Your task to perform on an android device: Turn off the flashlight Image 0: 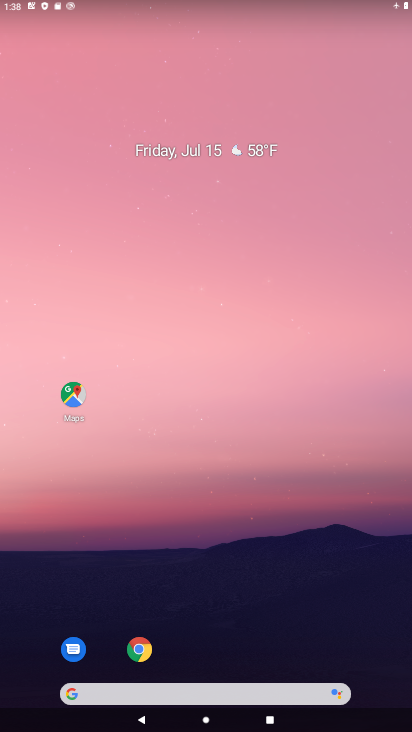
Step 0: drag from (235, 5) to (368, 547)
Your task to perform on an android device: Turn off the flashlight Image 1: 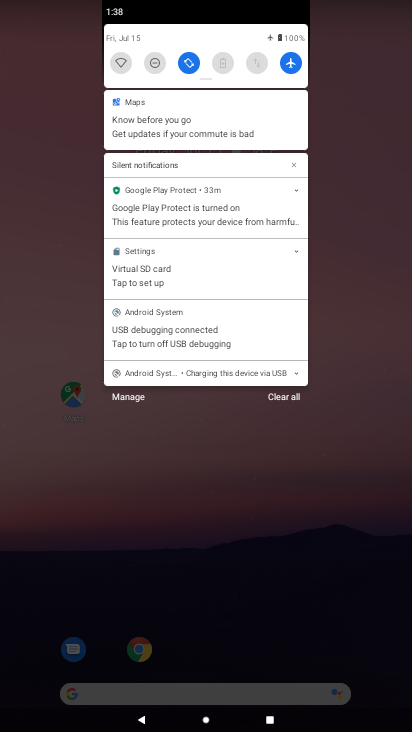
Step 1: task complete